Your task to perform on an android device: open a bookmark in the chrome app Image 0: 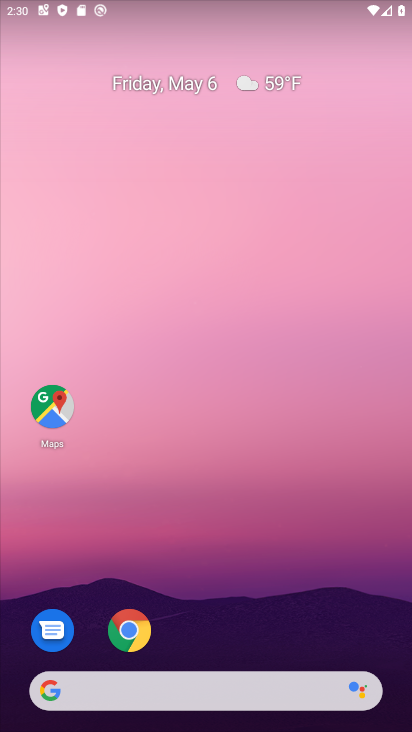
Step 0: click (127, 609)
Your task to perform on an android device: open a bookmark in the chrome app Image 1: 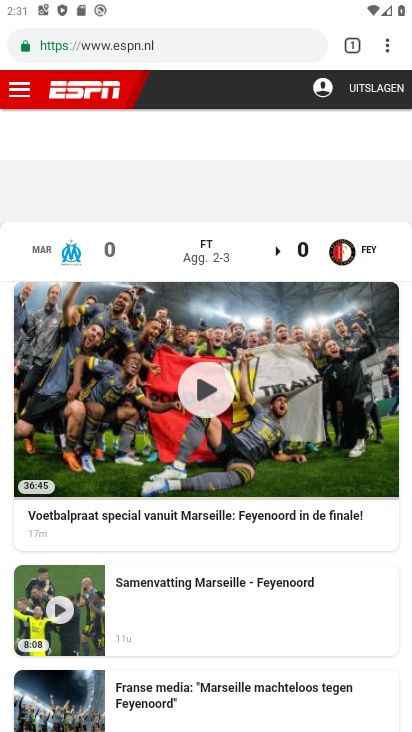
Step 1: click (392, 44)
Your task to perform on an android device: open a bookmark in the chrome app Image 2: 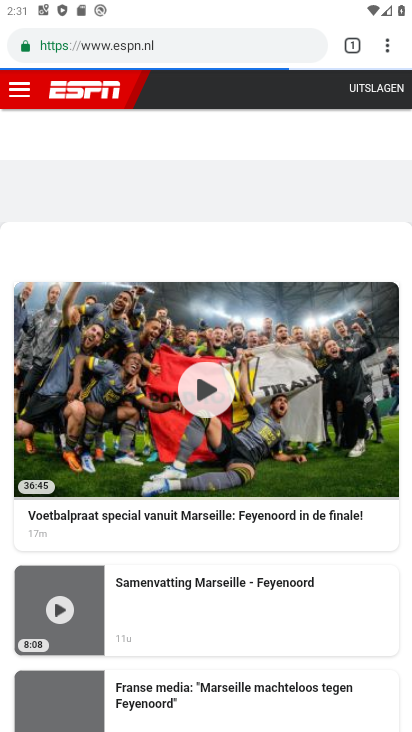
Step 2: click (386, 41)
Your task to perform on an android device: open a bookmark in the chrome app Image 3: 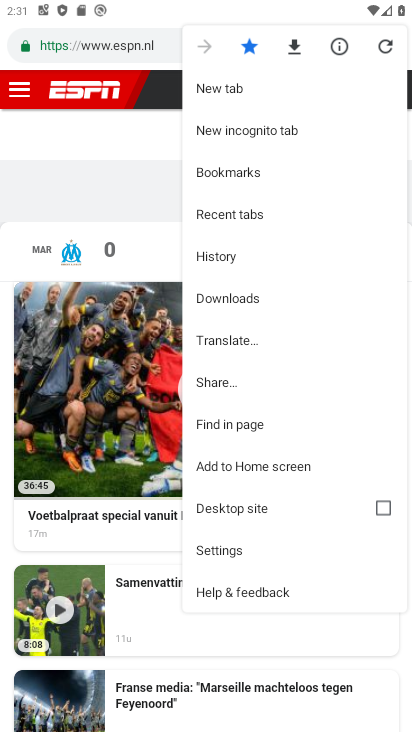
Step 3: click (271, 175)
Your task to perform on an android device: open a bookmark in the chrome app Image 4: 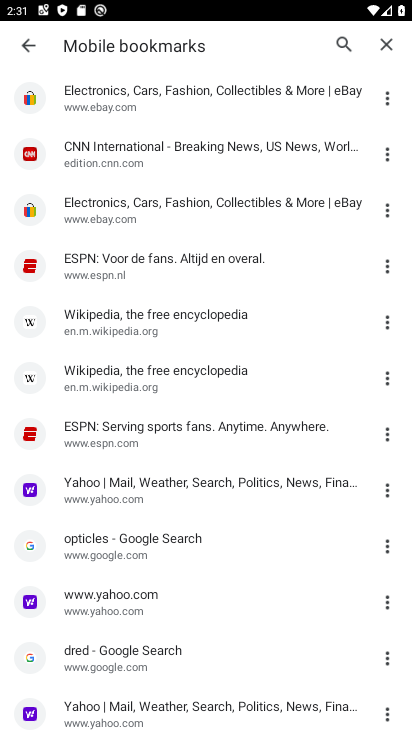
Step 4: click (143, 293)
Your task to perform on an android device: open a bookmark in the chrome app Image 5: 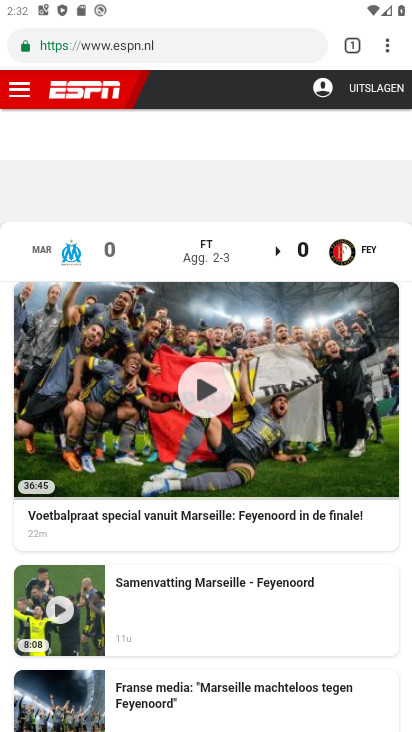
Step 5: task complete